Your task to perform on an android device: open chrome privacy settings Image 0: 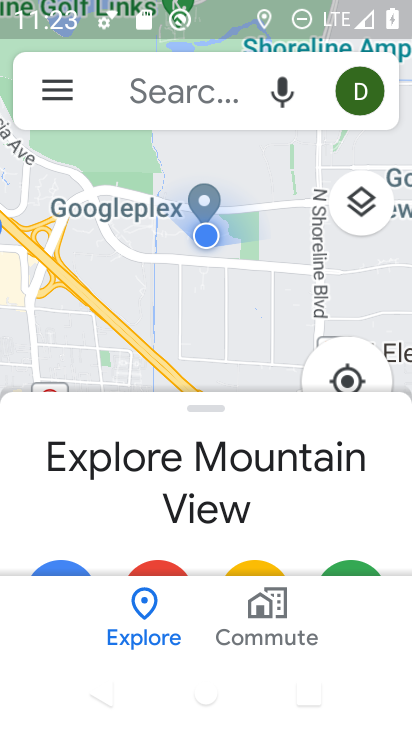
Step 0: press home button
Your task to perform on an android device: open chrome privacy settings Image 1: 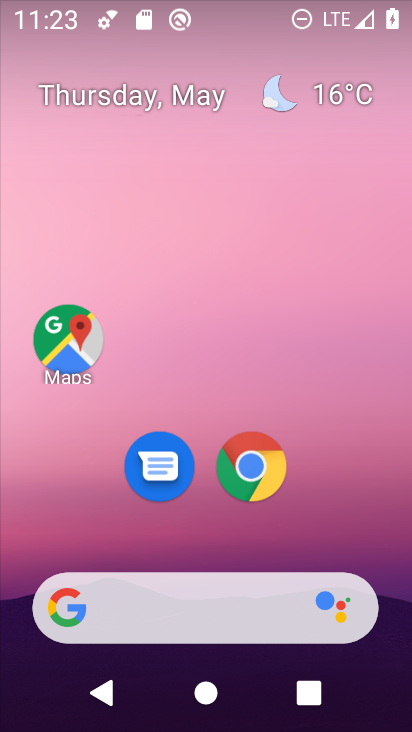
Step 1: click (263, 448)
Your task to perform on an android device: open chrome privacy settings Image 2: 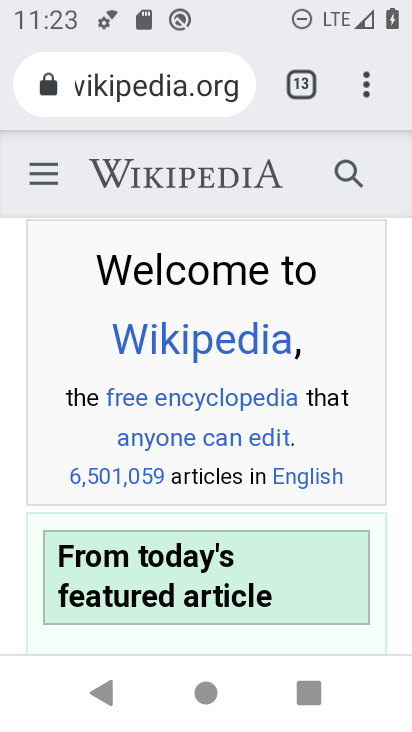
Step 2: click (379, 71)
Your task to perform on an android device: open chrome privacy settings Image 3: 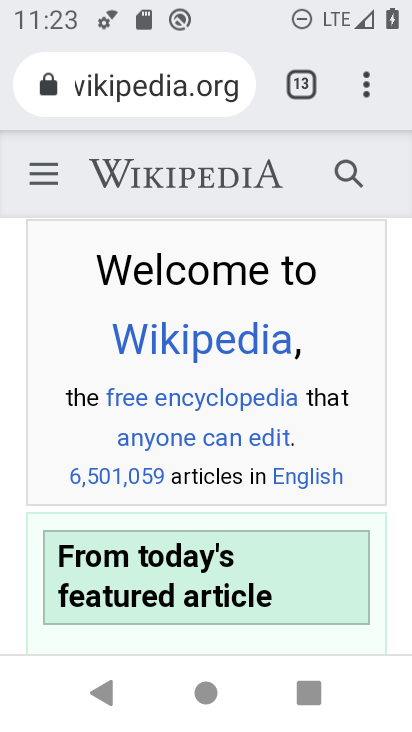
Step 3: click (372, 72)
Your task to perform on an android device: open chrome privacy settings Image 4: 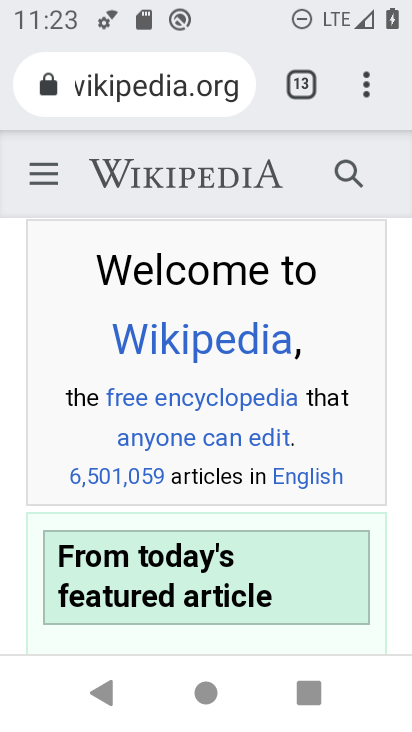
Step 4: click (372, 72)
Your task to perform on an android device: open chrome privacy settings Image 5: 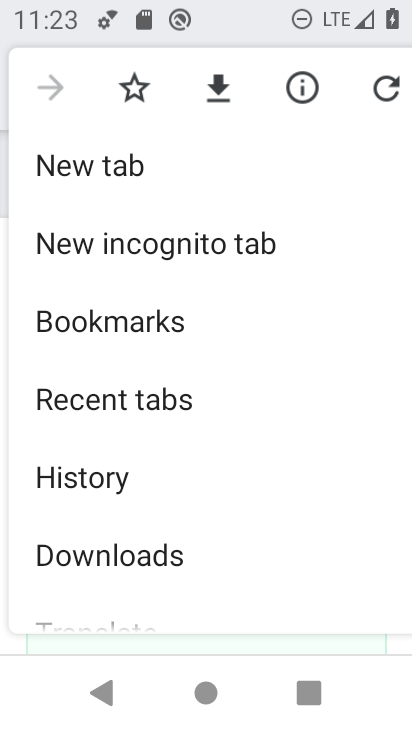
Step 5: drag from (211, 548) to (247, 182)
Your task to perform on an android device: open chrome privacy settings Image 6: 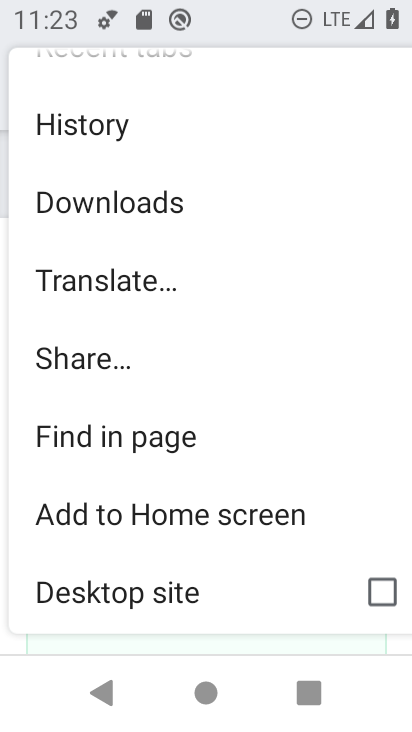
Step 6: drag from (191, 538) to (242, 225)
Your task to perform on an android device: open chrome privacy settings Image 7: 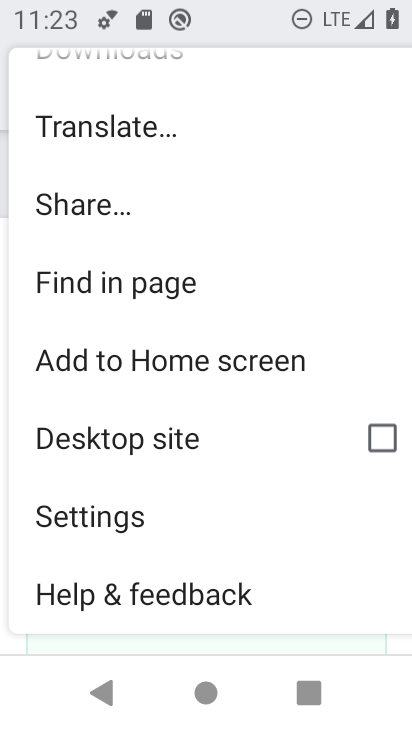
Step 7: click (131, 515)
Your task to perform on an android device: open chrome privacy settings Image 8: 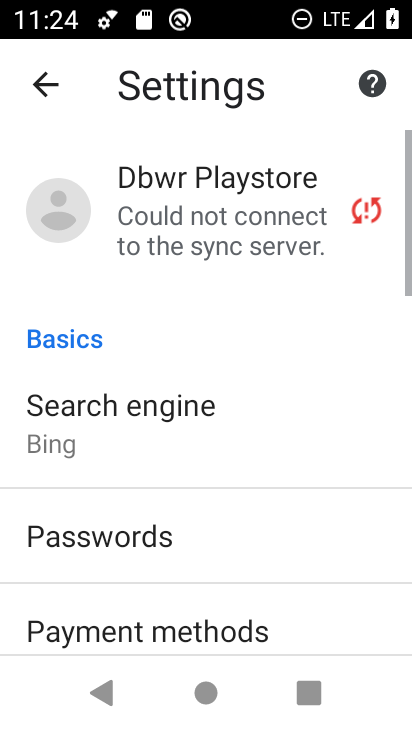
Step 8: drag from (172, 524) to (276, 134)
Your task to perform on an android device: open chrome privacy settings Image 9: 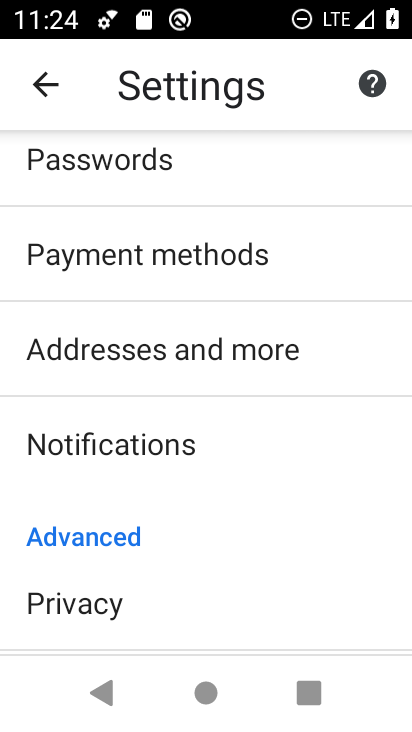
Step 9: click (166, 586)
Your task to perform on an android device: open chrome privacy settings Image 10: 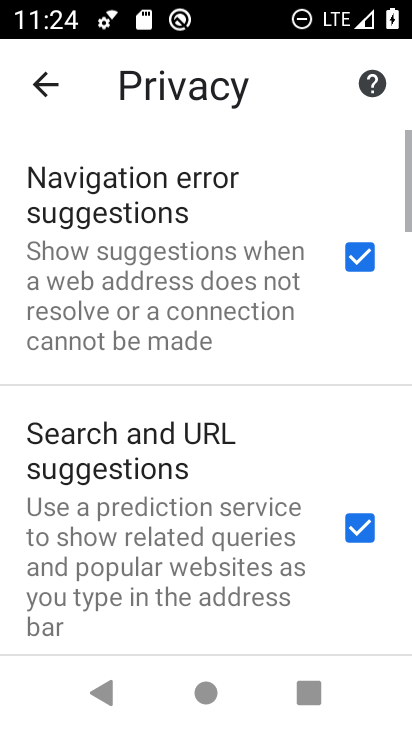
Step 10: task complete